Your task to perform on an android device: Go to Maps Image 0: 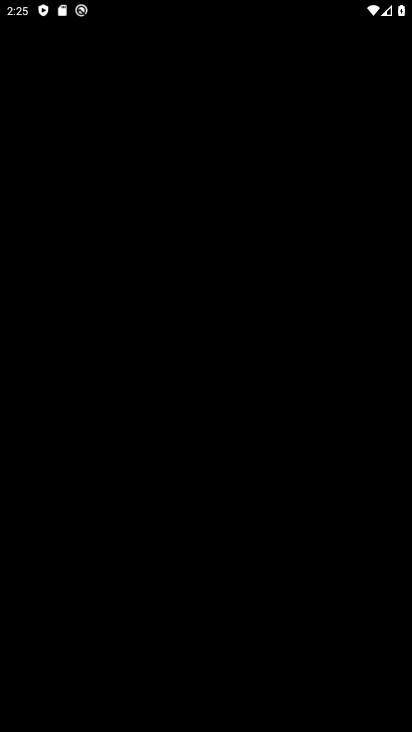
Step 0: press home button
Your task to perform on an android device: Go to Maps Image 1: 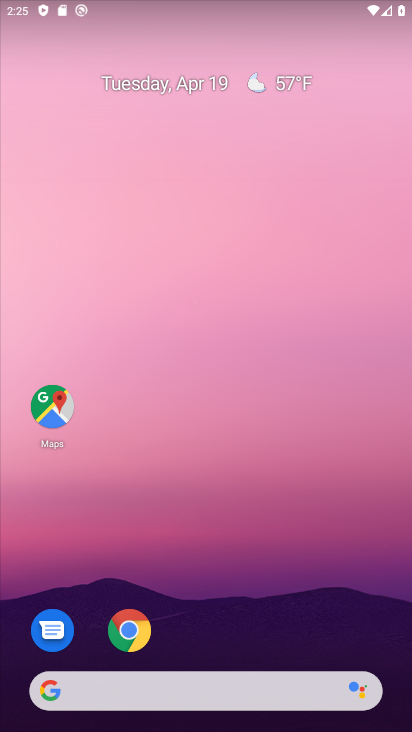
Step 1: click (51, 405)
Your task to perform on an android device: Go to Maps Image 2: 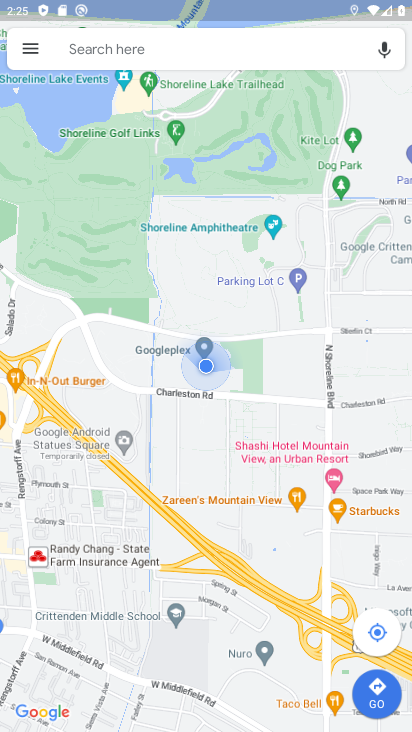
Step 2: task complete